Your task to perform on an android device: Open the Play Movies app and select the watchlist tab. Image 0: 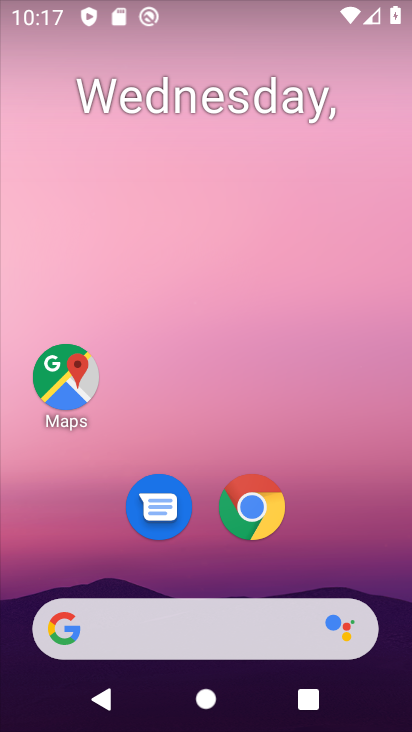
Step 0: drag from (238, 654) to (333, 132)
Your task to perform on an android device: Open the Play Movies app and select the watchlist tab. Image 1: 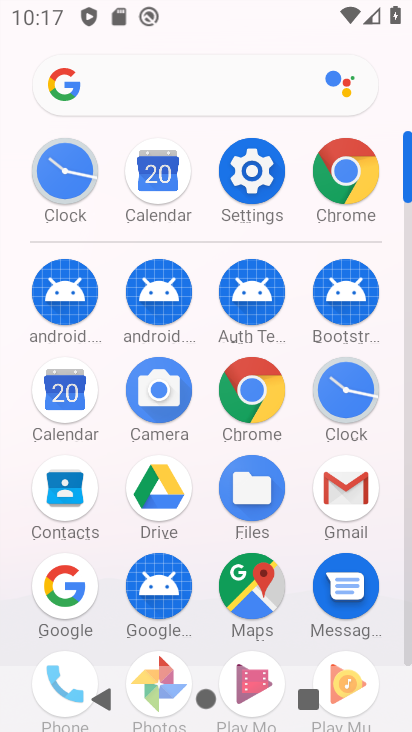
Step 1: drag from (302, 545) to (411, 333)
Your task to perform on an android device: Open the Play Movies app and select the watchlist tab. Image 2: 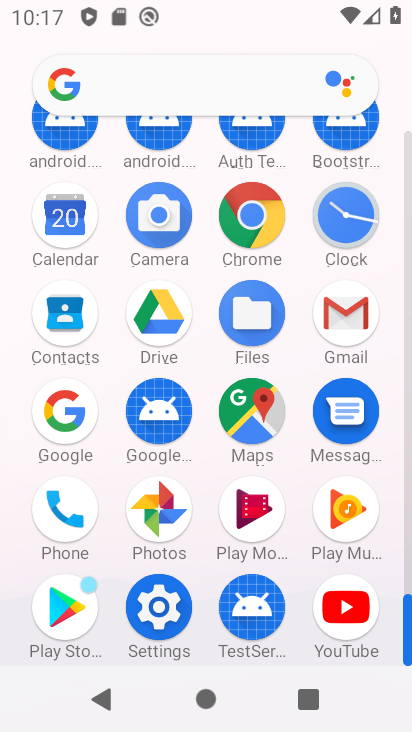
Step 2: click (267, 516)
Your task to perform on an android device: Open the Play Movies app and select the watchlist tab. Image 3: 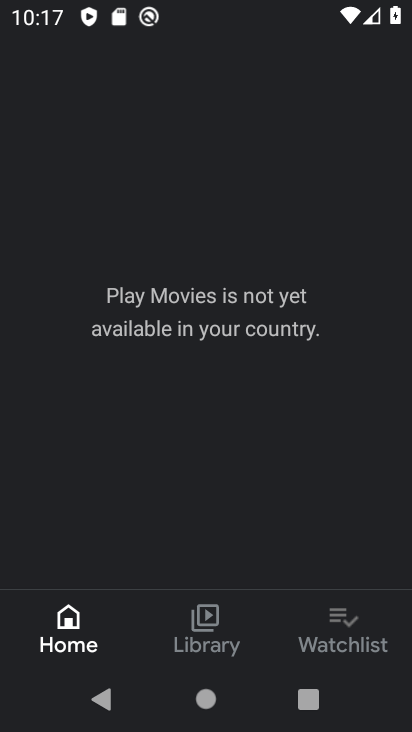
Step 3: click (334, 635)
Your task to perform on an android device: Open the Play Movies app and select the watchlist tab. Image 4: 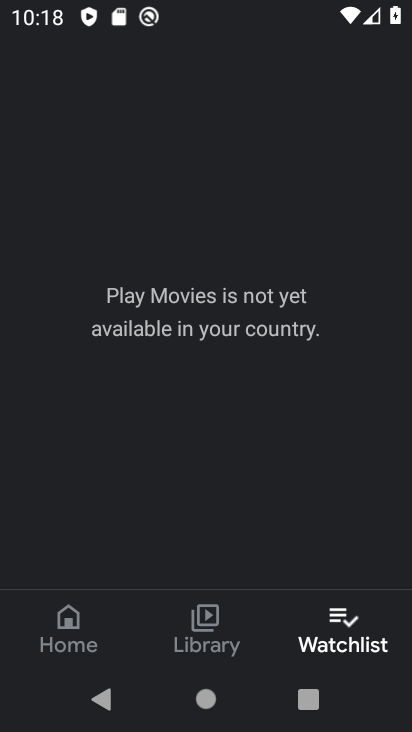
Step 4: task complete